Your task to perform on an android device: toggle pop-ups in chrome Image 0: 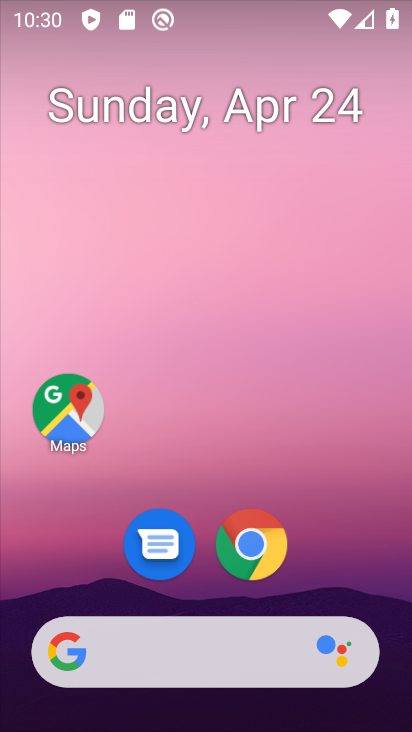
Step 0: drag from (362, 441) to (341, 90)
Your task to perform on an android device: toggle pop-ups in chrome Image 1: 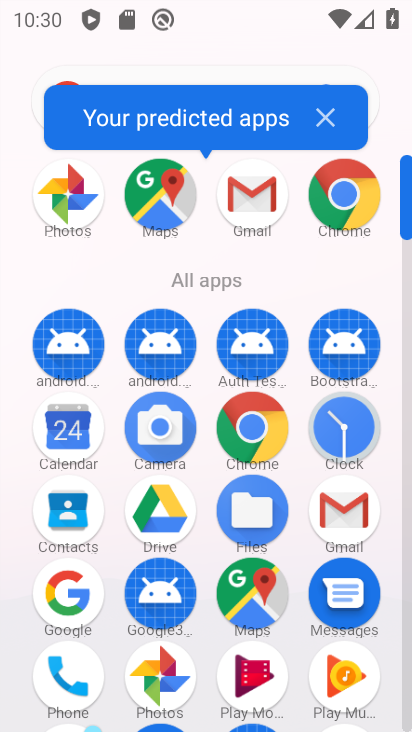
Step 1: click (350, 207)
Your task to perform on an android device: toggle pop-ups in chrome Image 2: 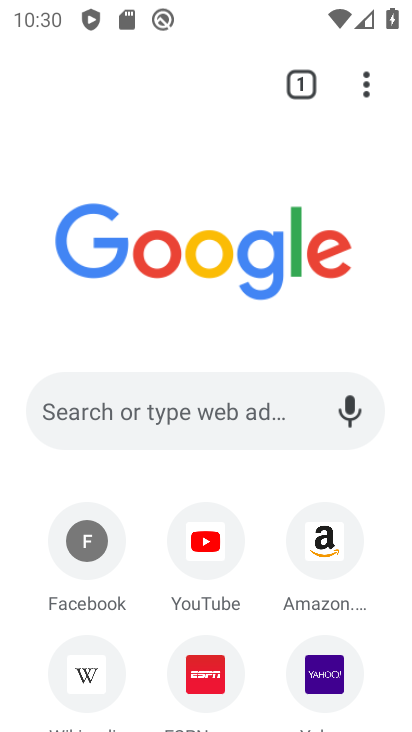
Step 2: drag from (363, 91) to (138, 592)
Your task to perform on an android device: toggle pop-ups in chrome Image 3: 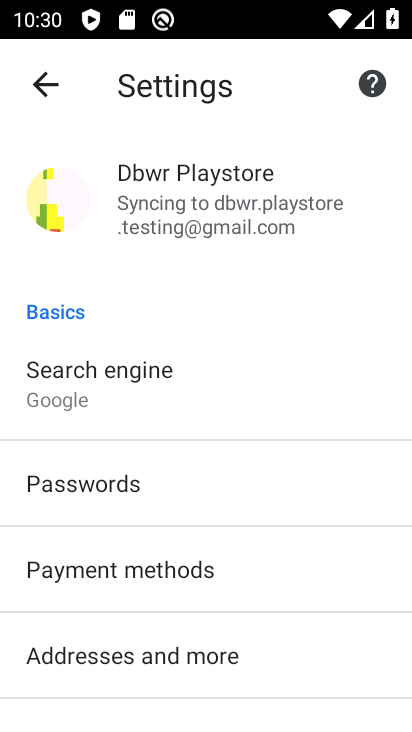
Step 3: drag from (280, 597) to (259, 255)
Your task to perform on an android device: toggle pop-ups in chrome Image 4: 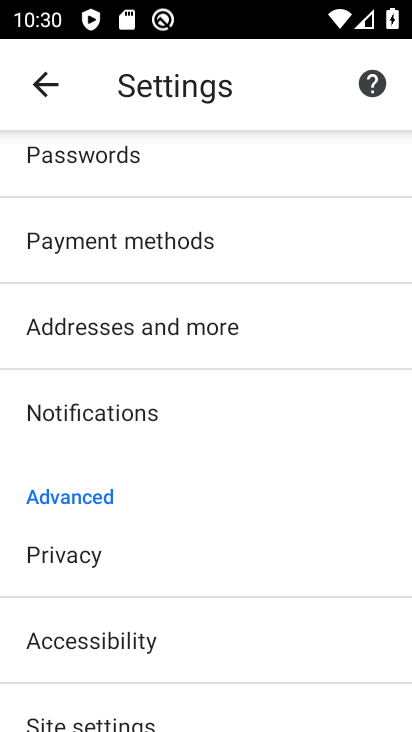
Step 4: click (115, 718)
Your task to perform on an android device: toggle pop-ups in chrome Image 5: 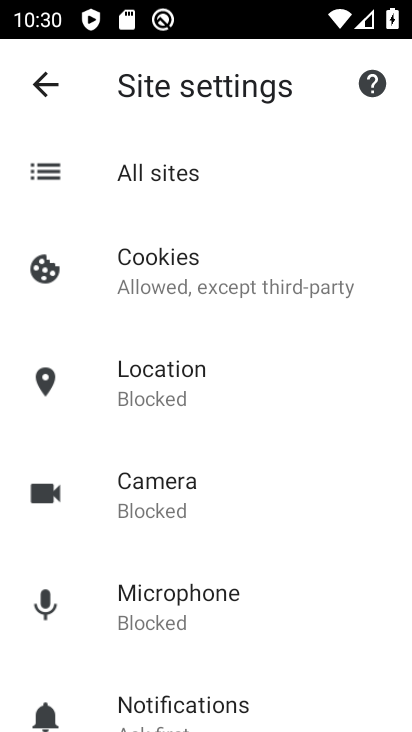
Step 5: drag from (310, 609) to (294, 266)
Your task to perform on an android device: toggle pop-ups in chrome Image 6: 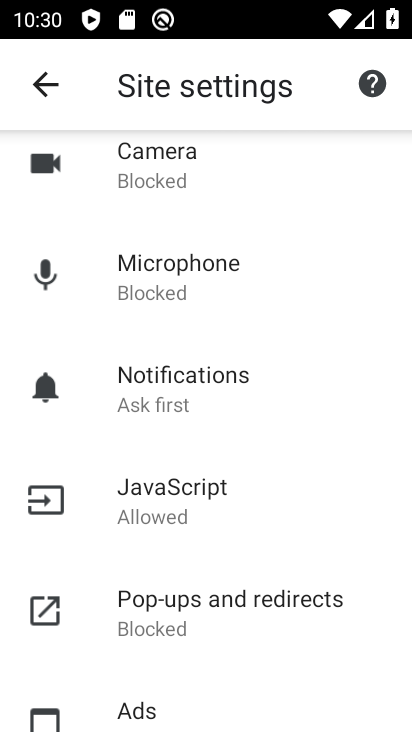
Step 6: click (181, 610)
Your task to perform on an android device: toggle pop-ups in chrome Image 7: 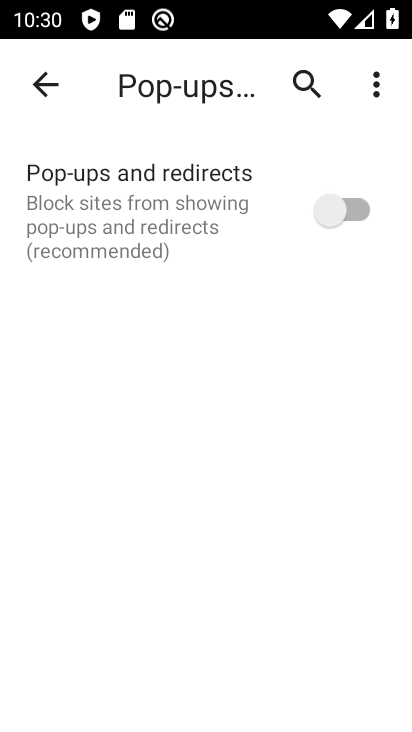
Step 7: click (342, 218)
Your task to perform on an android device: toggle pop-ups in chrome Image 8: 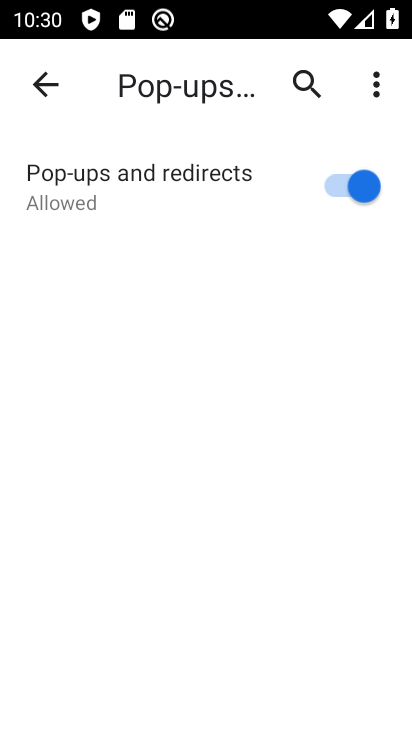
Step 8: task complete